Your task to perform on an android device: Go to Google maps Image 0: 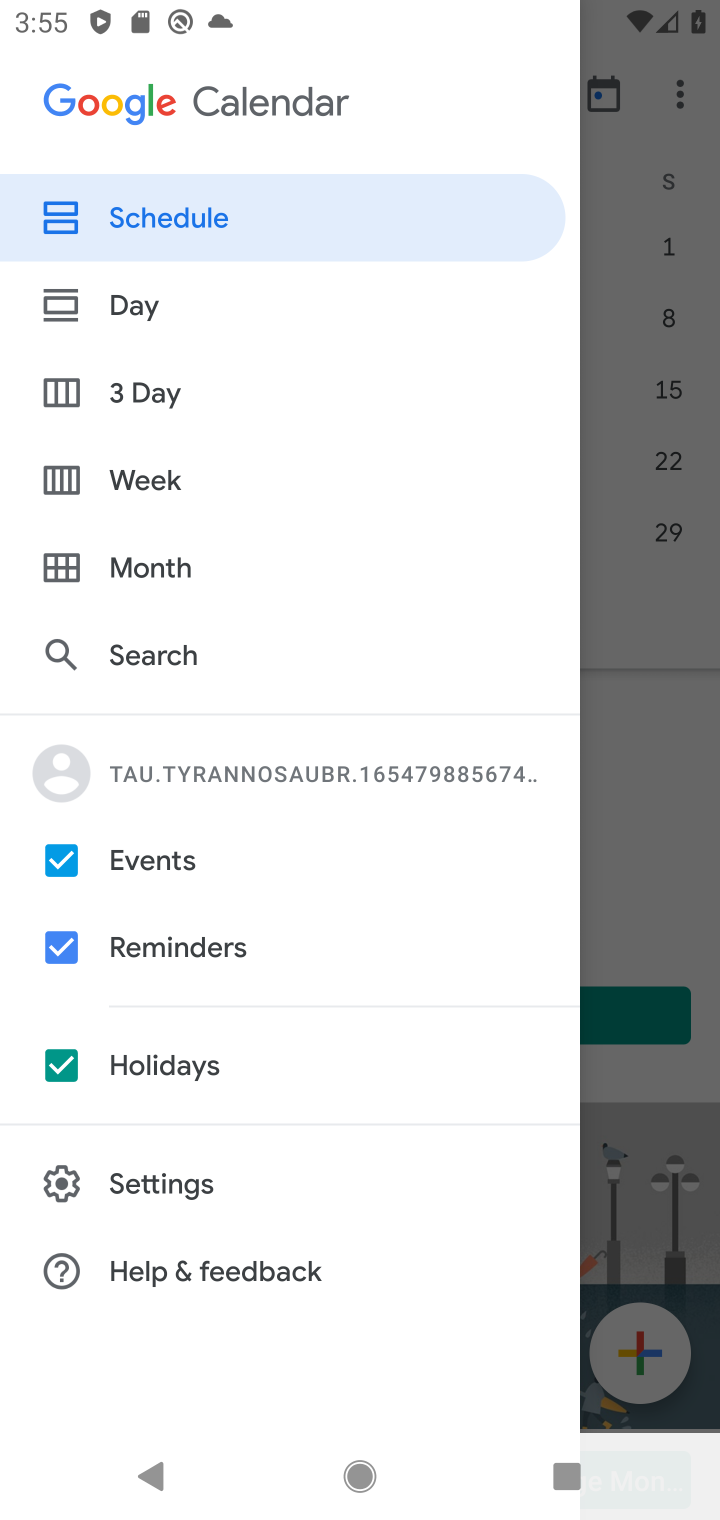
Step 0: press home button
Your task to perform on an android device: Go to Google maps Image 1: 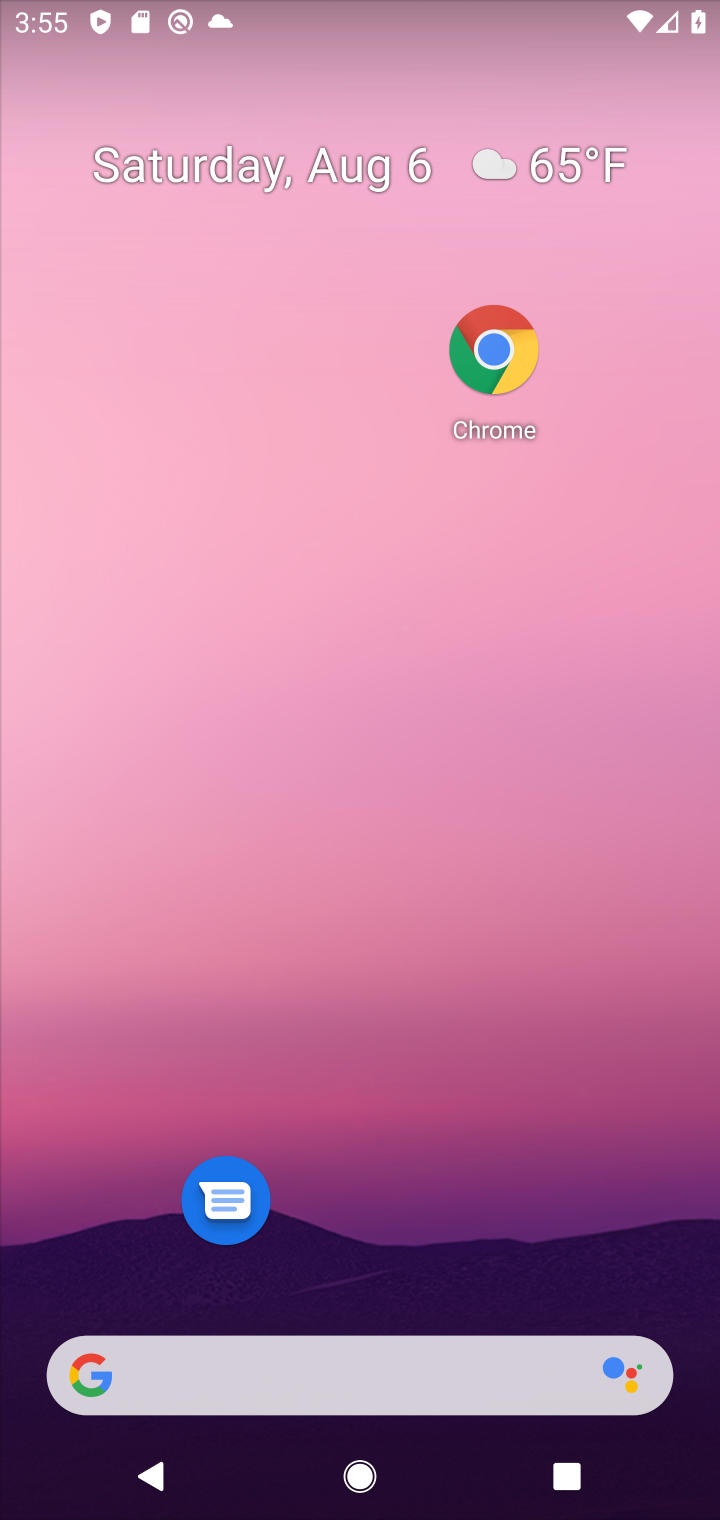
Step 1: drag from (324, 1318) to (305, 346)
Your task to perform on an android device: Go to Google maps Image 2: 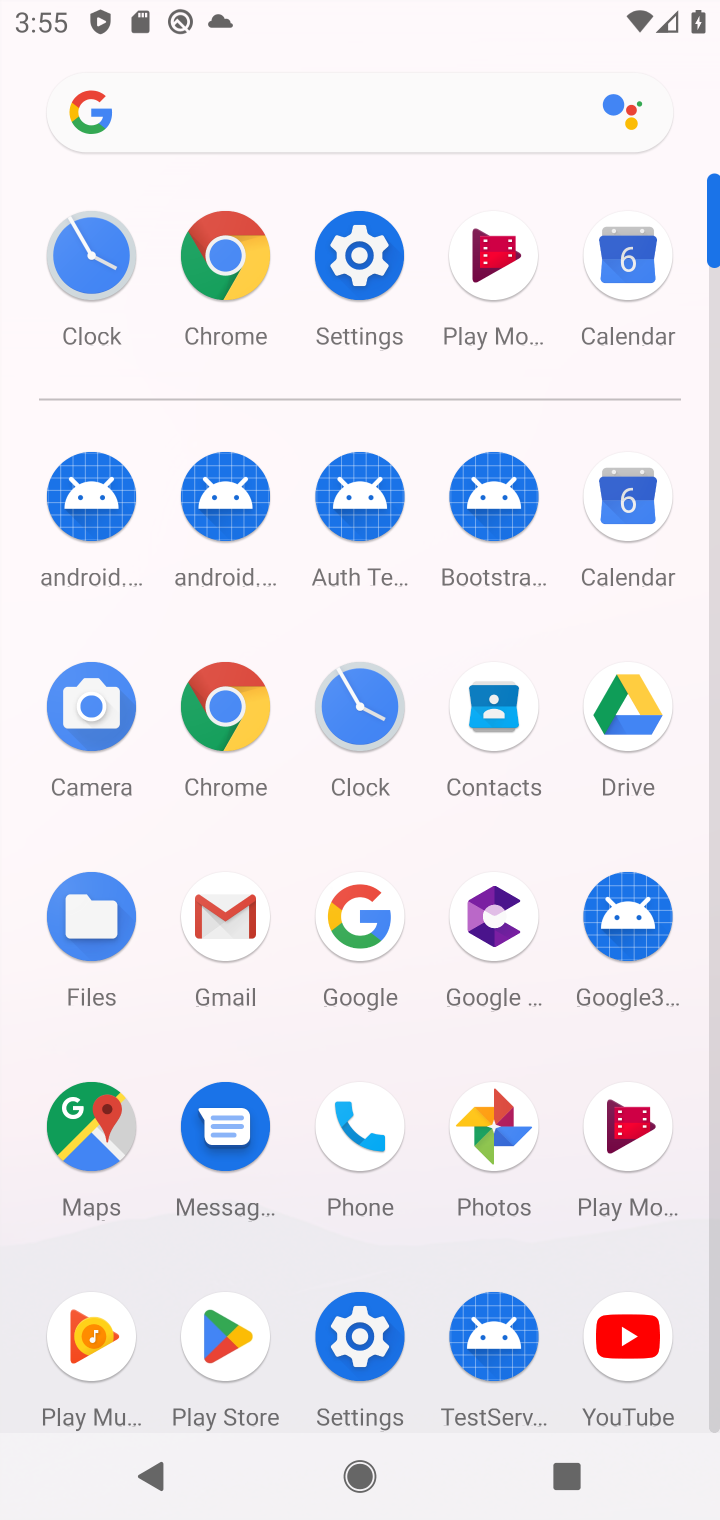
Step 2: click (133, 1146)
Your task to perform on an android device: Go to Google maps Image 3: 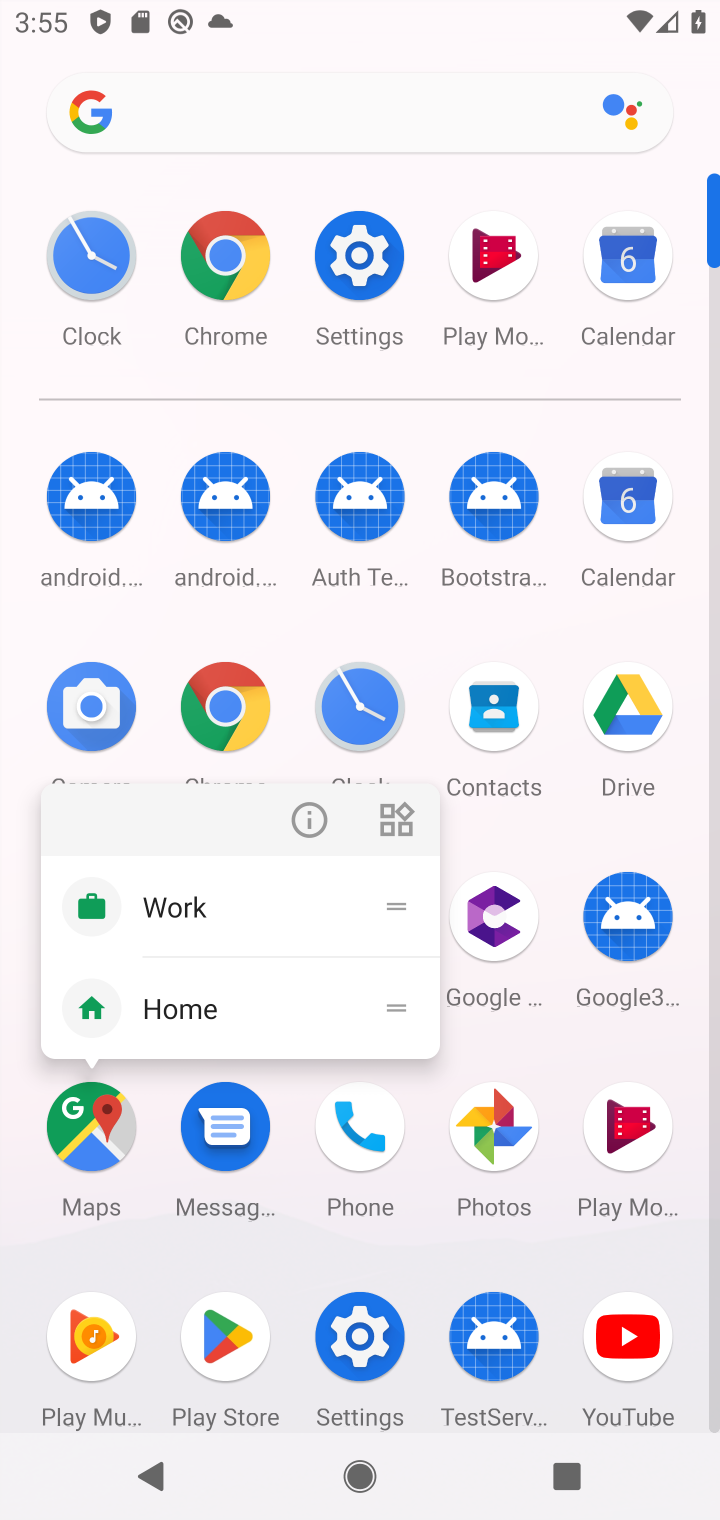
Step 3: click (100, 1128)
Your task to perform on an android device: Go to Google maps Image 4: 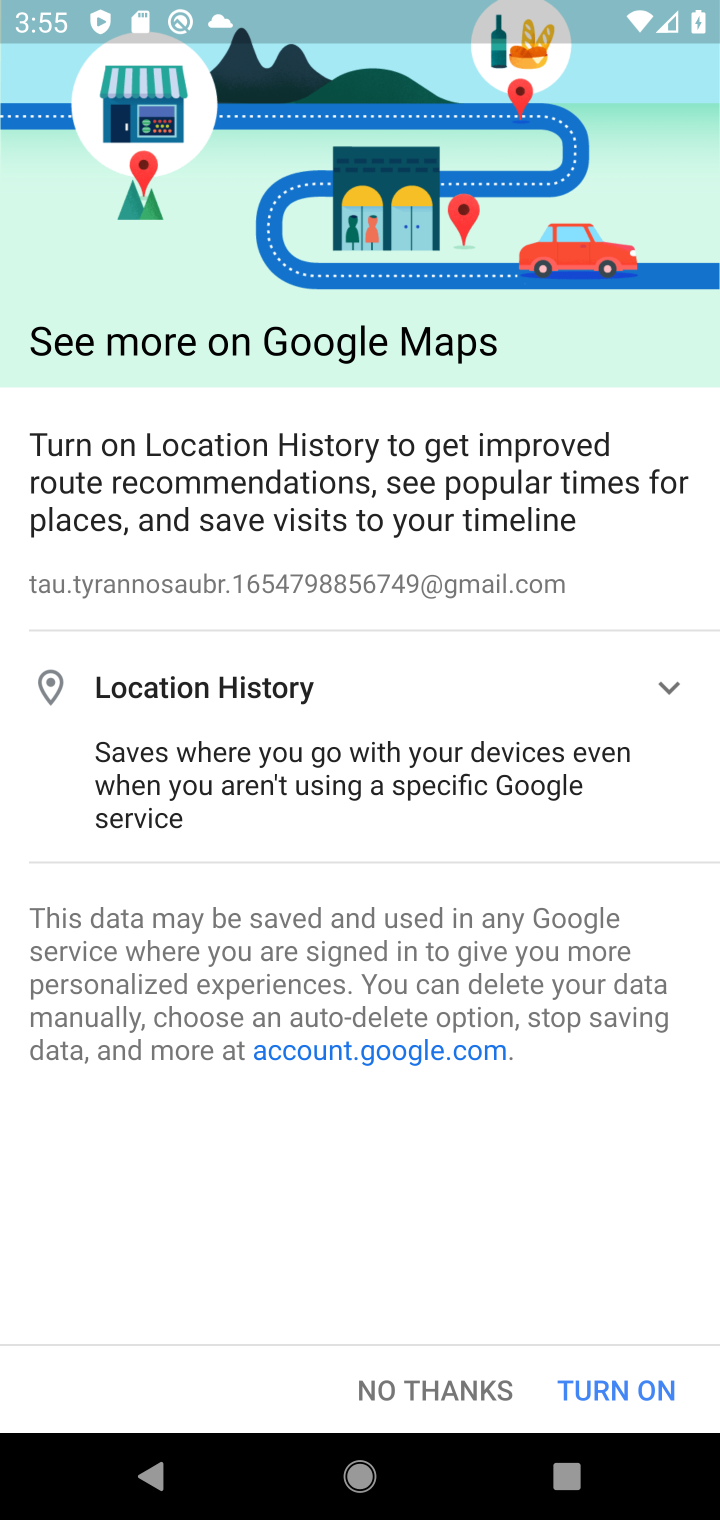
Step 4: click (632, 1401)
Your task to perform on an android device: Go to Google maps Image 5: 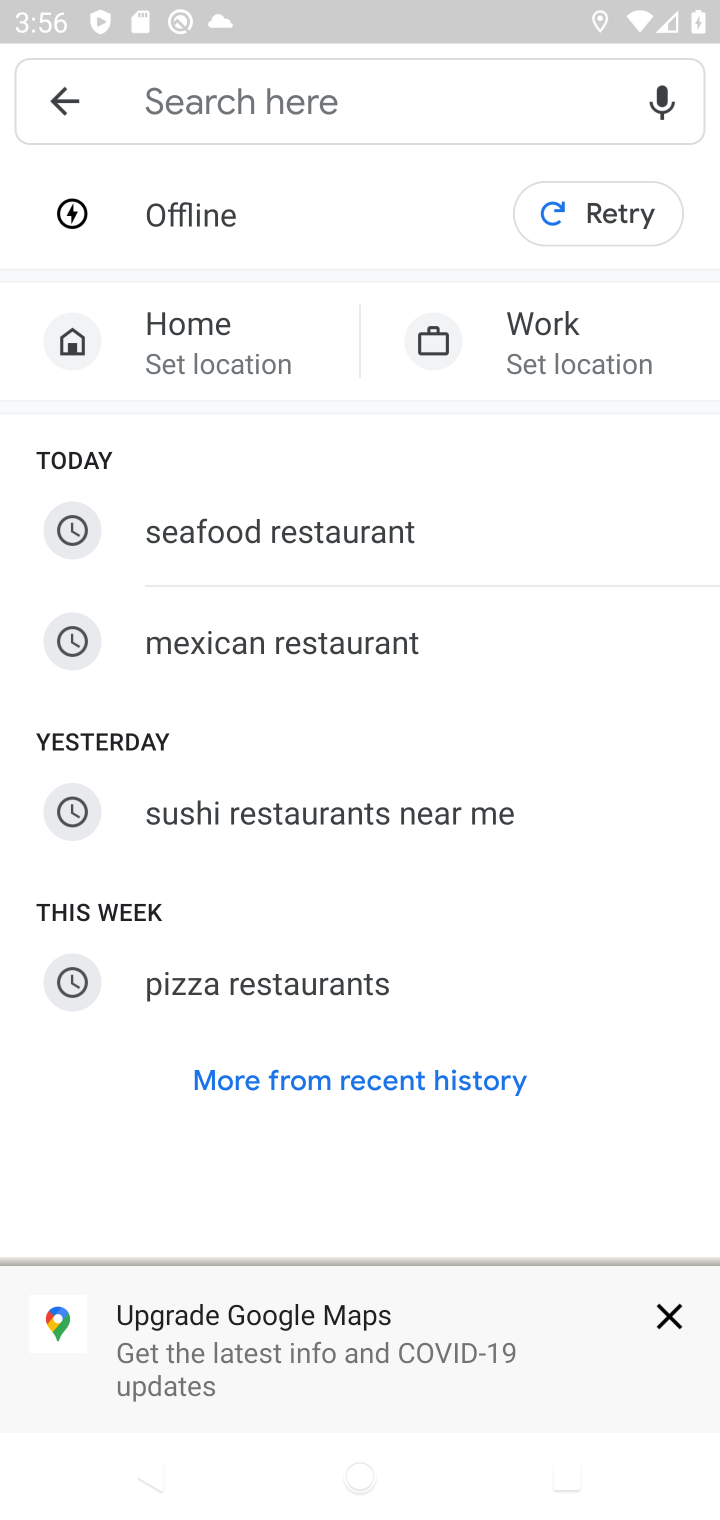
Step 5: click (674, 1324)
Your task to perform on an android device: Go to Google maps Image 6: 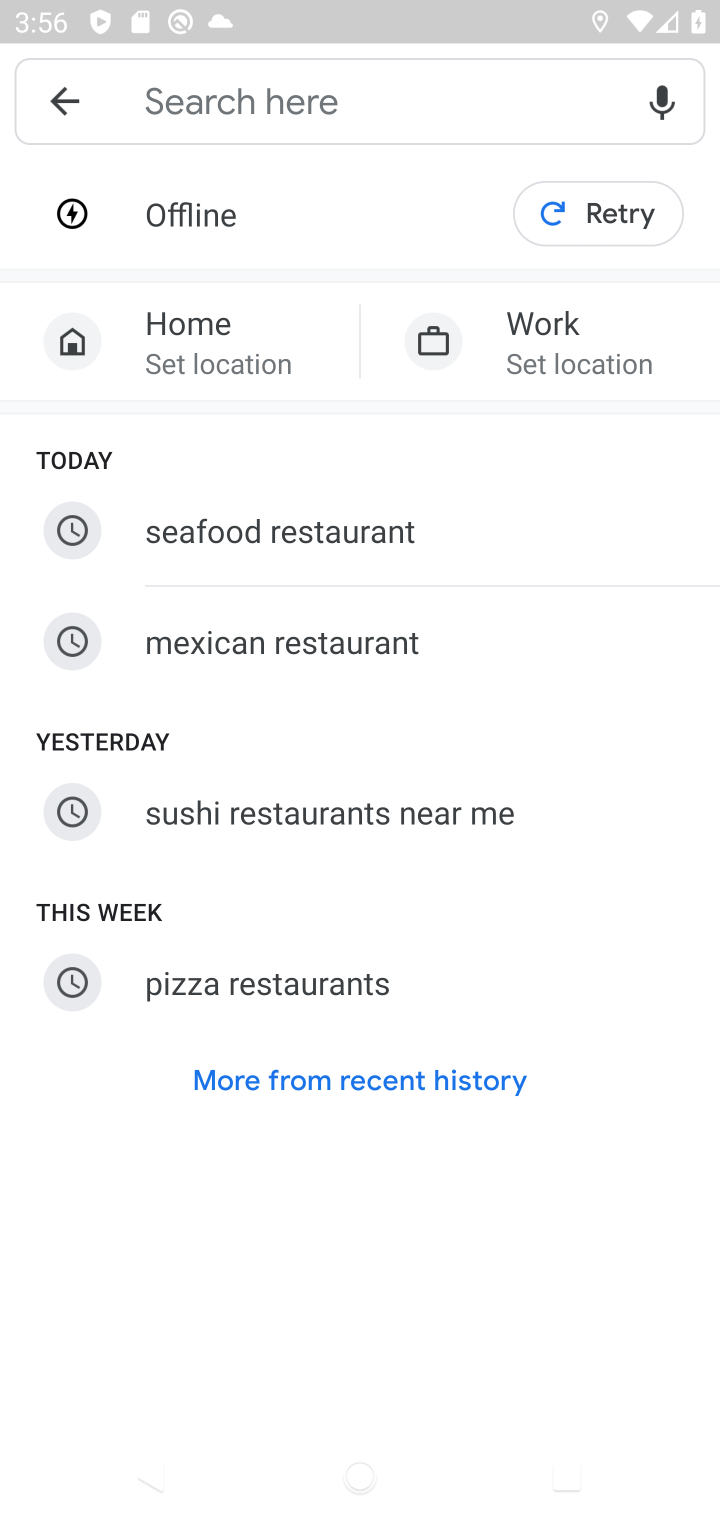
Step 6: click (57, 107)
Your task to perform on an android device: Go to Google maps Image 7: 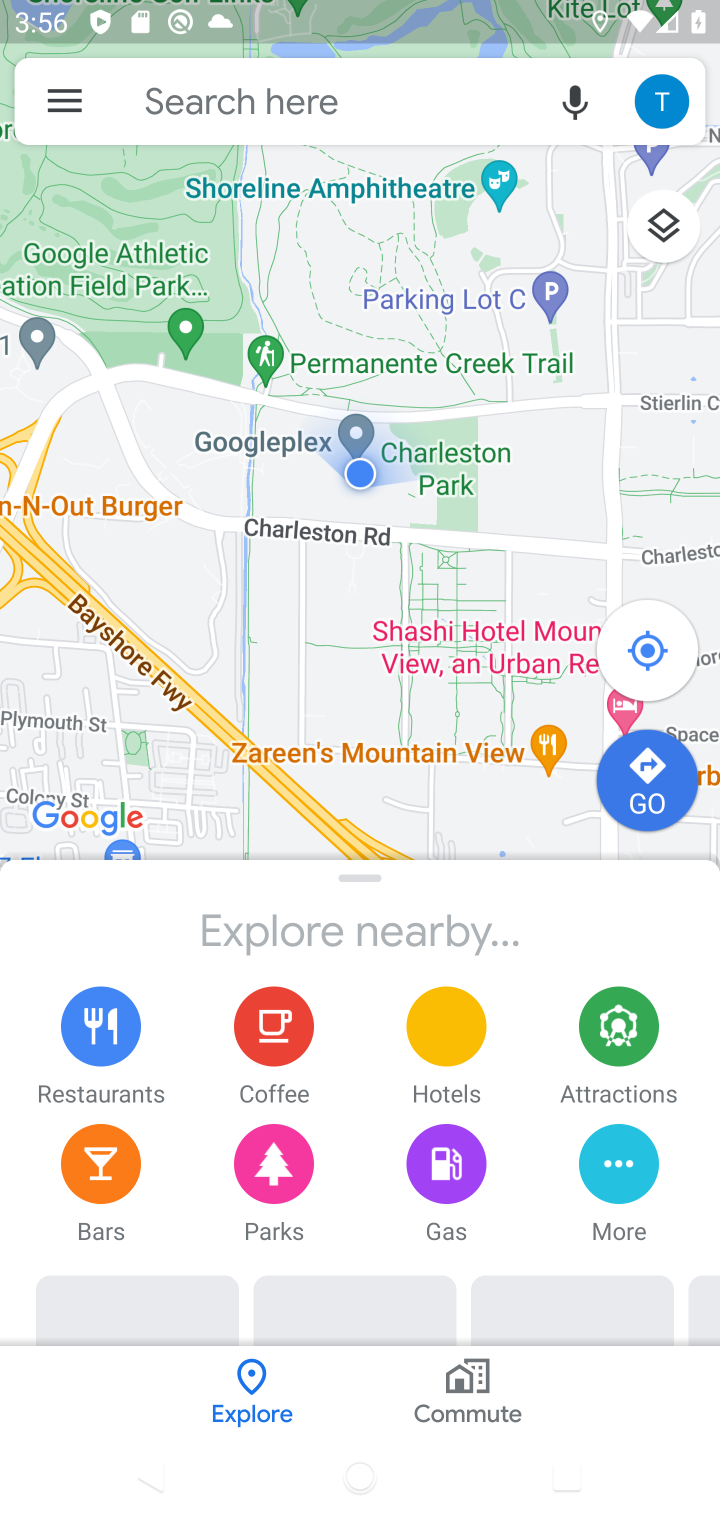
Step 7: task complete